Your task to perform on an android device: toggle show notifications on the lock screen Image 0: 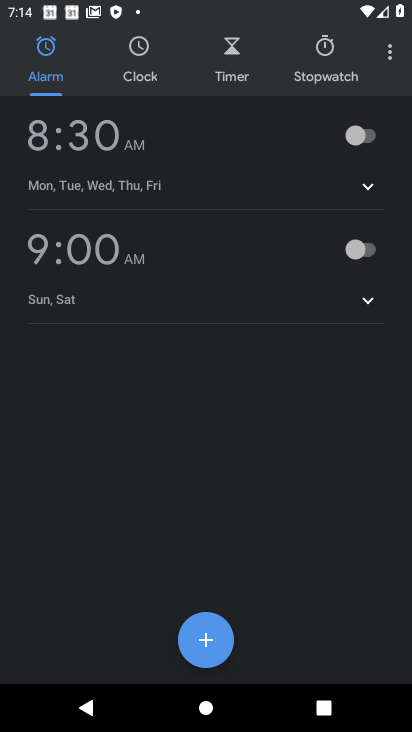
Step 0: press home button
Your task to perform on an android device: toggle show notifications on the lock screen Image 1: 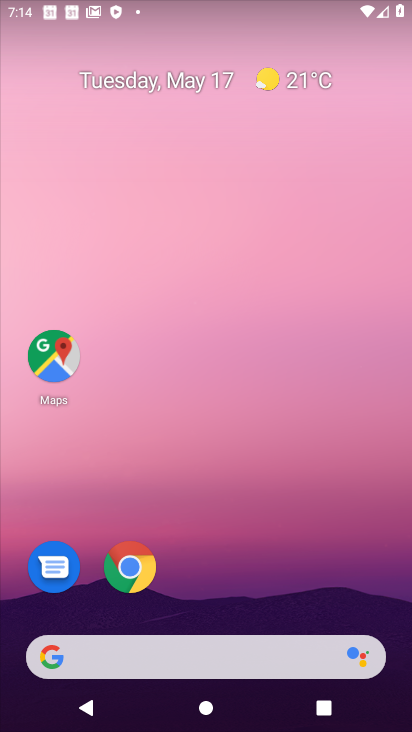
Step 1: drag from (258, 497) to (131, 66)
Your task to perform on an android device: toggle show notifications on the lock screen Image 2: 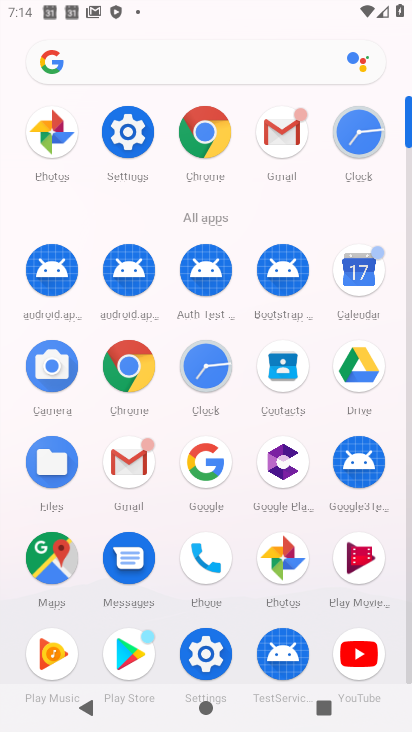
Step 2: click (127, 122)
Your task to perform on an android device: toggle show notifications on the lock screen Image 3: 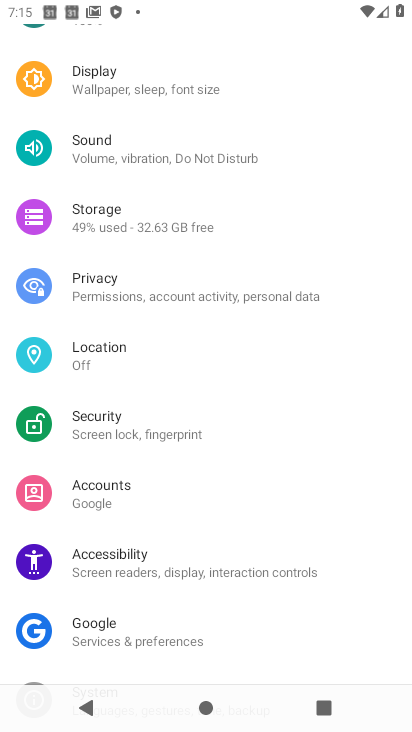
Step 3: drag from (187, 157) to (297, 504)
Your task to perform on an android device: toggle show notifications on the lock screen Image 4: 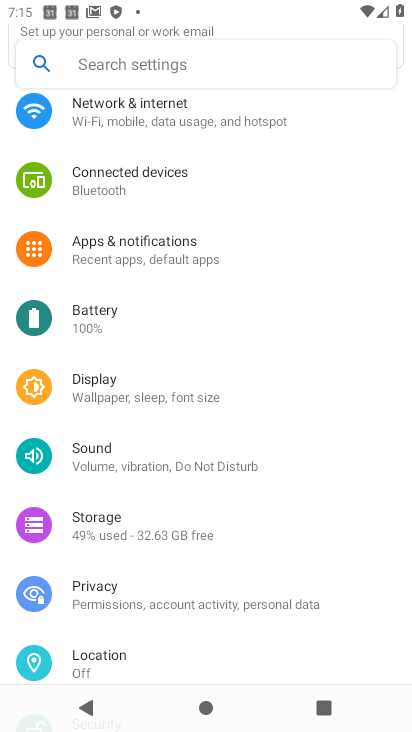
Step 4: click (145, 243)
Your task to perform on an android device: toggle show notifications on the lock screen Image 5: 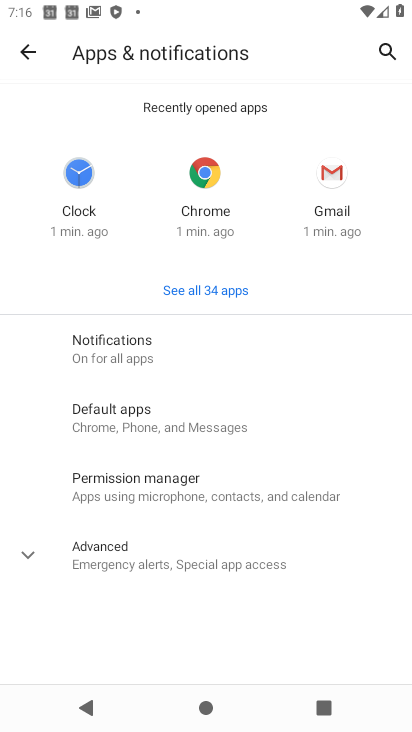
Step 5: drag from (227, 521) to (119, 193)
Your task to perform on an android device: toggle show notifications on the lock screen Image 6: 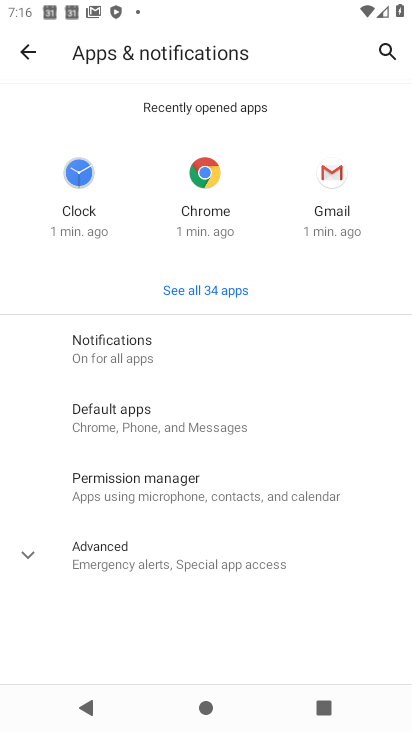
Step 6: click (82, 335)
Your task to perform on an android device: toggle show notifications on the lock screen Image 7: 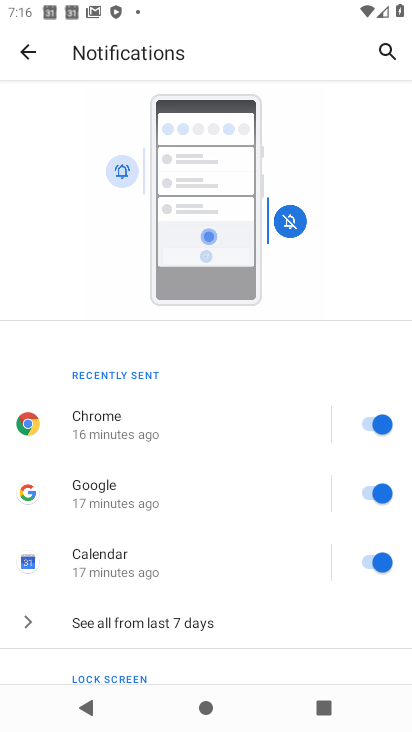
Step 7: drag from (182, 548) to (112, 177)
Your task to perform on an android device: toggle show notifications on the lock screen Image 8: 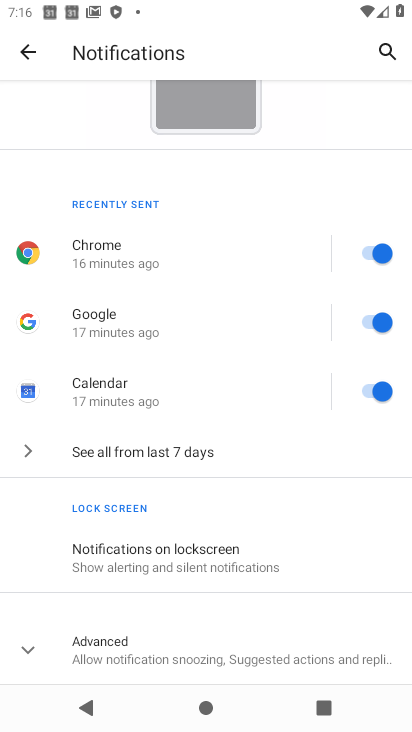
Step 8: click (154, 547)
Your task to perform on an android device: toggle show notifications on the lock screen Image 9: 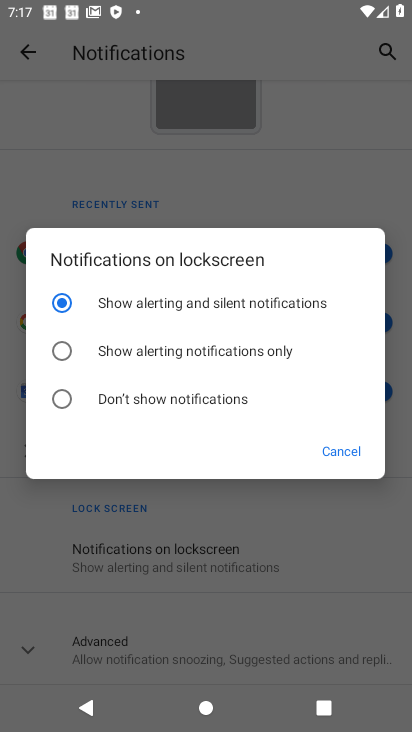
Step 9: click (57, 399)
Your task to perform on an android device: toggle show notifications on the lock screen Image 10: 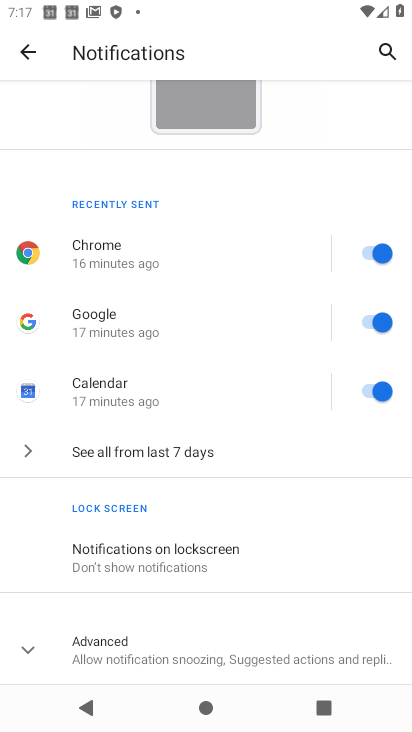
Step 10: task complete